Your task to perform on an android device: Google the capital of Paraguay Image 0: 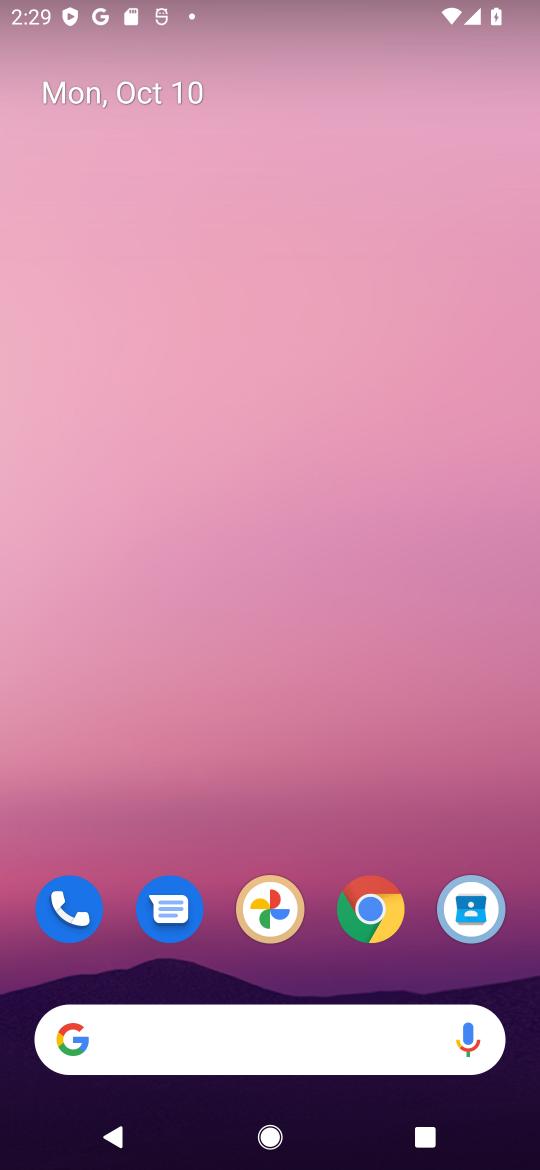
Step 0: click (374, 913)
Your task to perform on an android device: Google the capital of Paraguay Image 1: 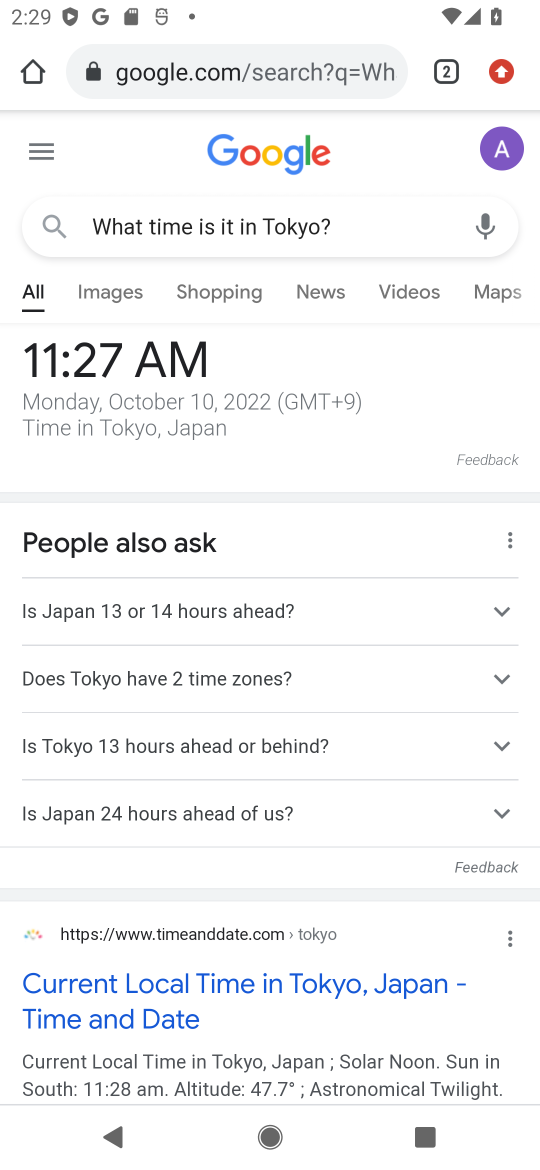
Step 1: click (236, 53)
Your task to perform on an android device: Google the capital of Paraguay Image 2: 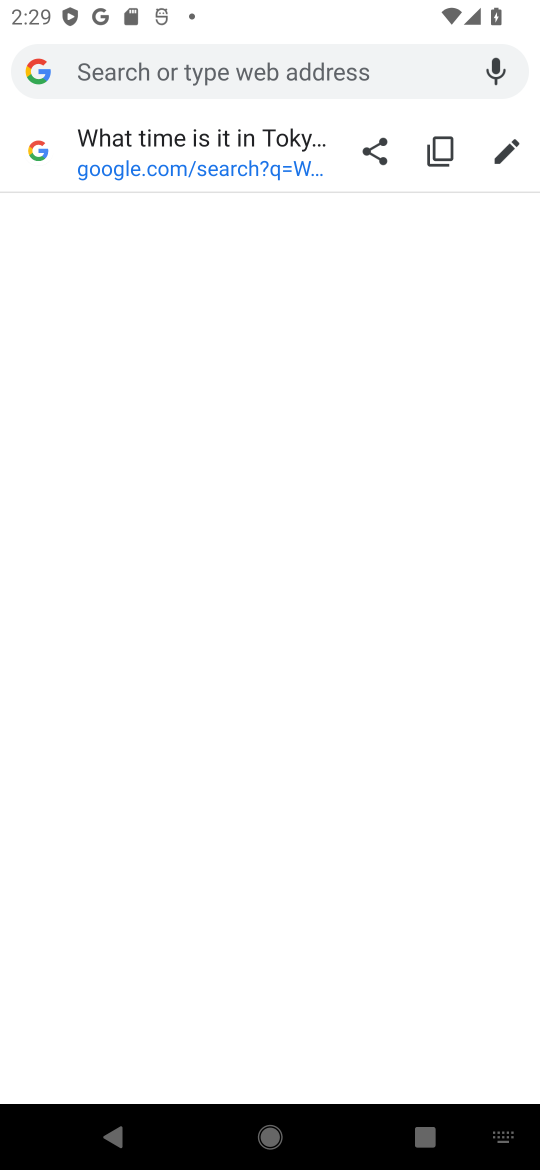
Step 2: type "capital of Paraguay"
Your task to perform on an android device: Google the capital of Paraguay Image 3: 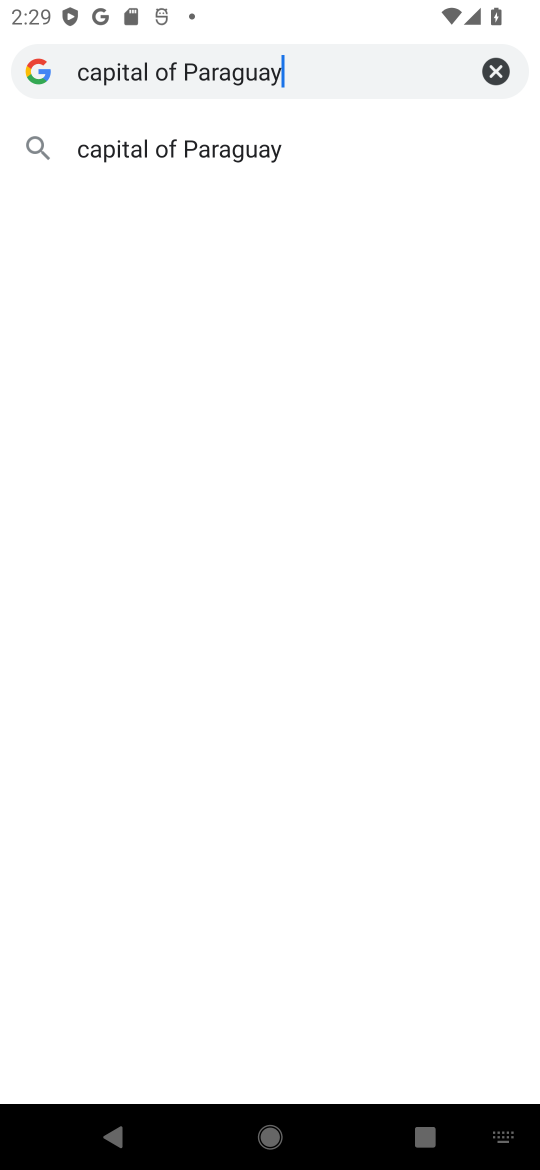
Step 3: click (202, 152)
Your task to perform on an android device: Google the capital of Paraguay Image 4: 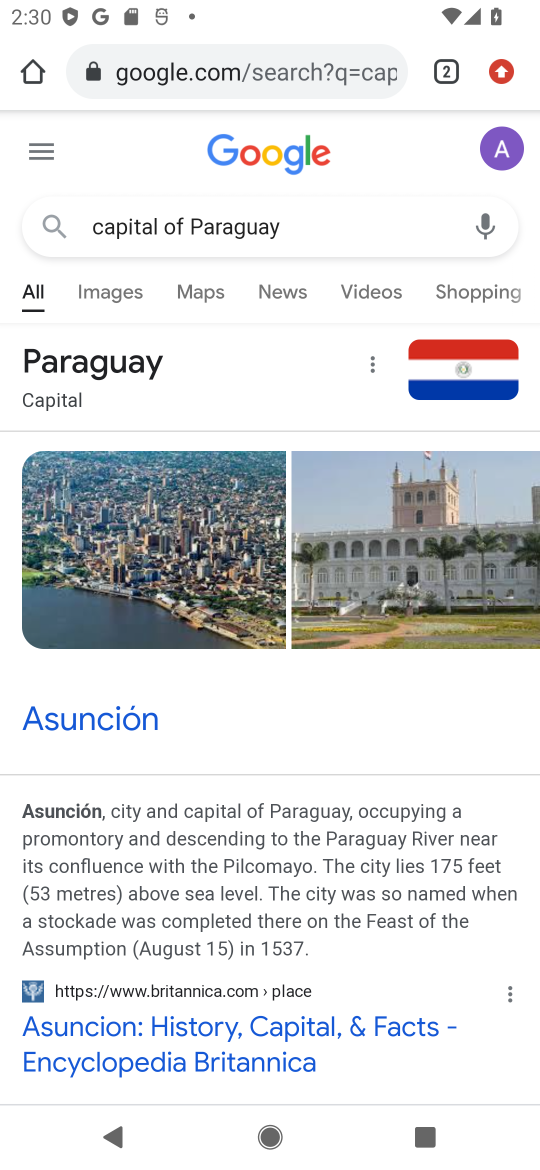
Step 4: task complete